Your task to perform on an android device: Go to network settings Image 0: 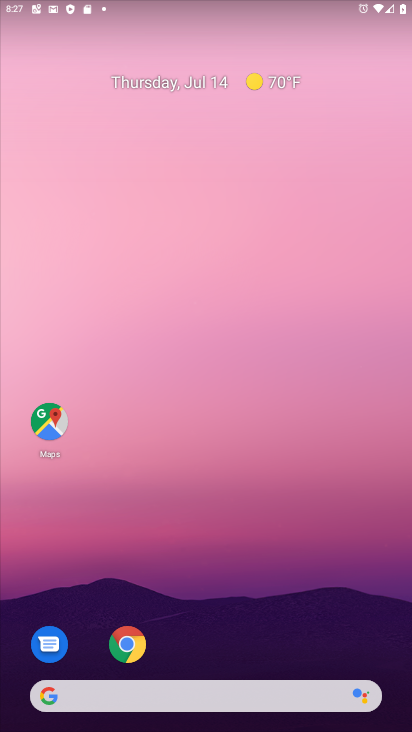
Step 0: drag from (223, 645) to (226, 266)
Your task to perform on an android device: Go to network settings Image 1: 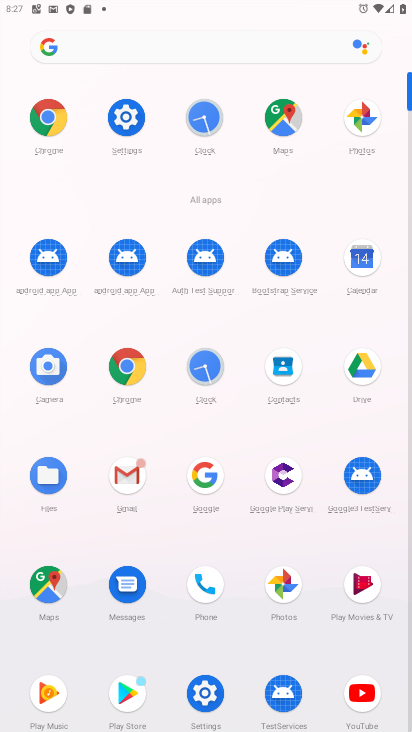
Step 1: click (127, 113)
Your task to perform on an android device: Go to network settings Image 2: 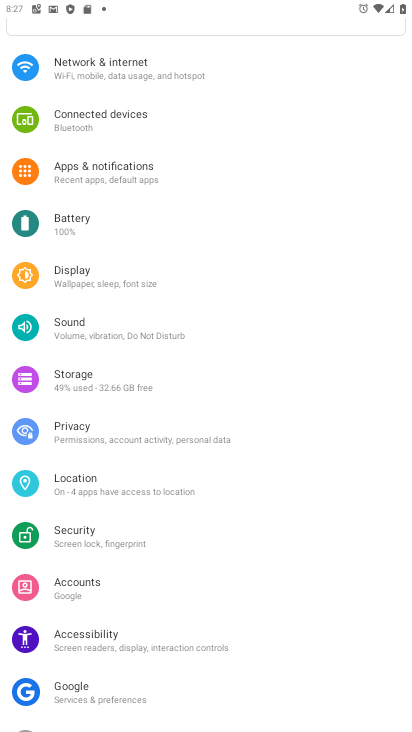
Step 2: click (117, 64)
Your task to perform on an android device: Go to network settings Image 3: 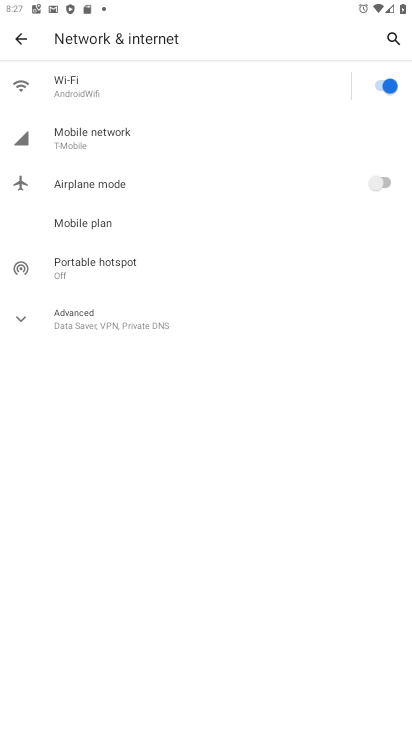
Step 3: task complete